Your task to perform on an android device: change notifications settings Image 0: 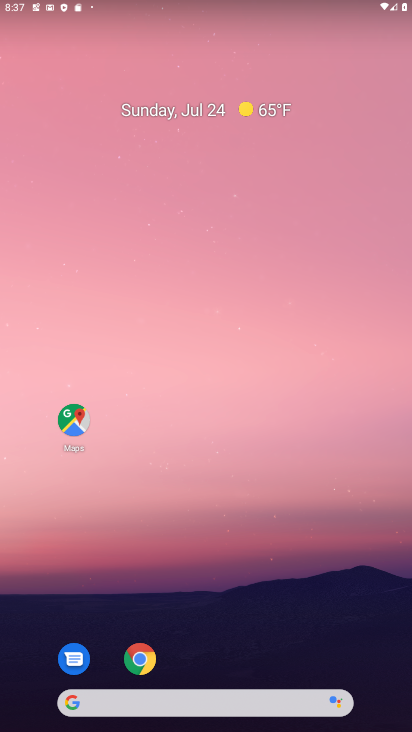
Step 0: drag from (297, 672) to (287, 30)
Your task to perform on an android device: change notifications settings Image 1: 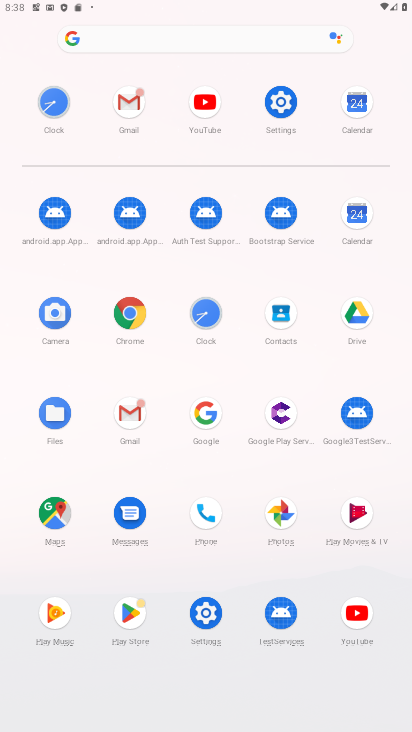
Step 1: click (281, 106)
Your task to perform on an android device: change notifications settings Image 2: 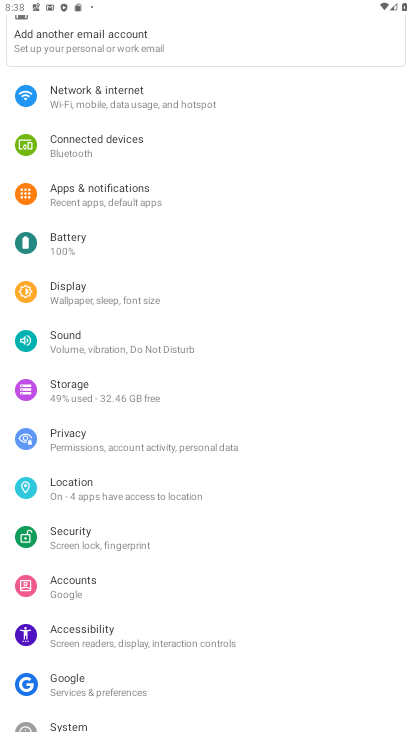
Step 2: click (117, 193)
Your task to perform on an android device: change notifications settings Image 3: 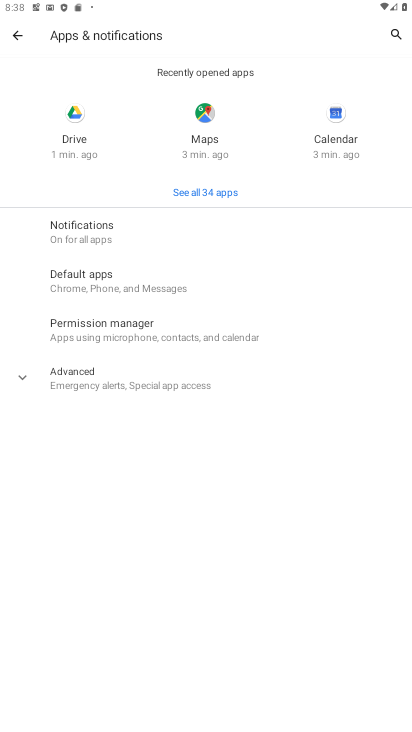
Step 3: click (99, 234)
Your task to perform on an android device: change notifications settings Image 4: 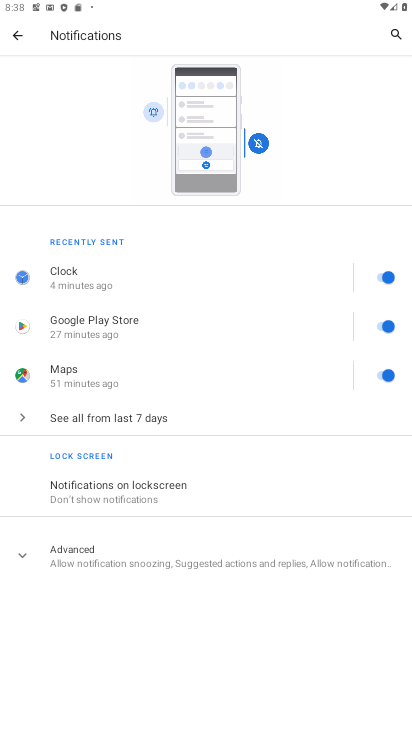
Step 4: click (111, 420)
Your task to perform on an android device: change notifications settings Image 5: 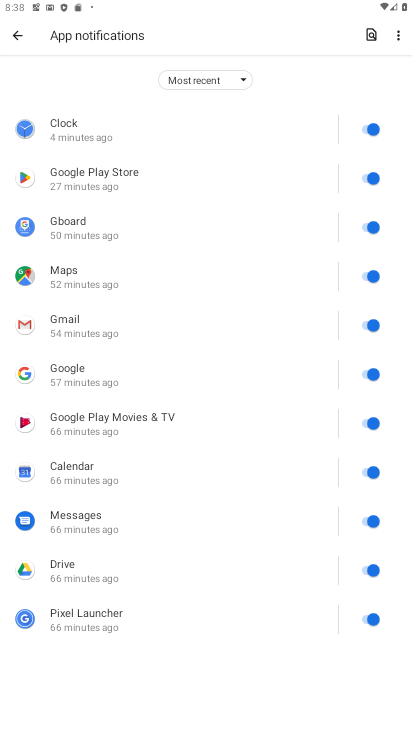
Step 5: click (240, 78)
Your task to perform on an android device: change notifications settings Image 6: 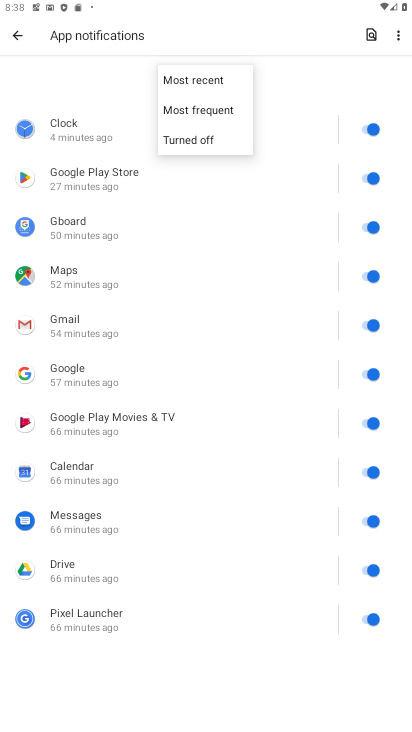
Step 6: click (195, 110)
Your task to perform on an android device: change notifications settings Image 7: 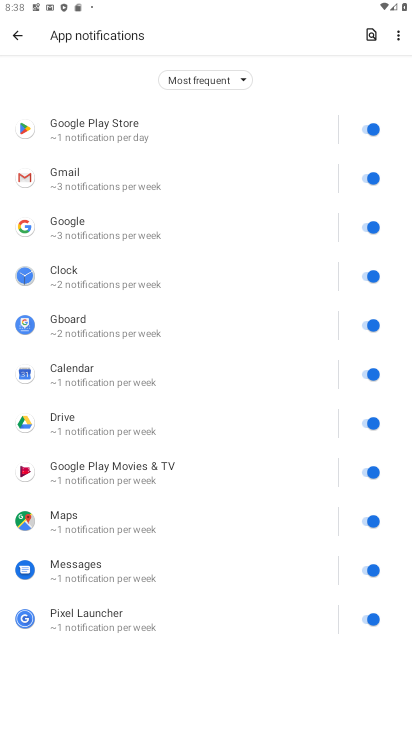
Step 7: task complete